Your task to perform on an android device: check android version Image 0: 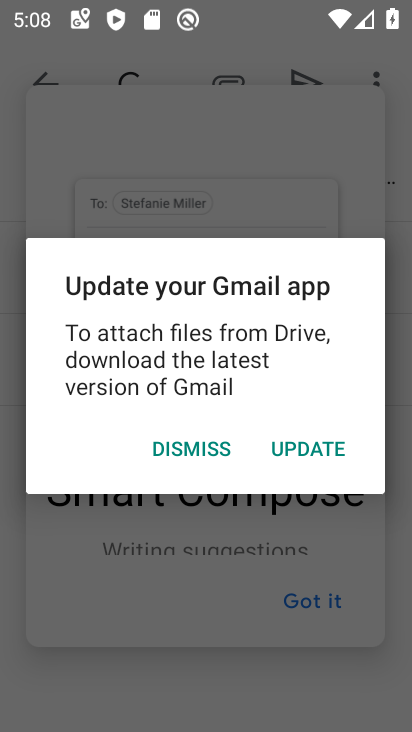
Step 0: press home button
Your task to perform on an android device: check android version Image 1: 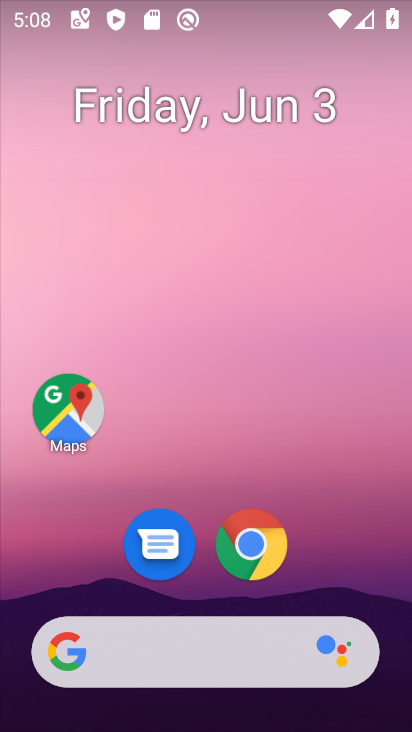
Step 1: drag from (343, 586) to (302, 156)
Your task to perform on an android device: check android version Image 2: 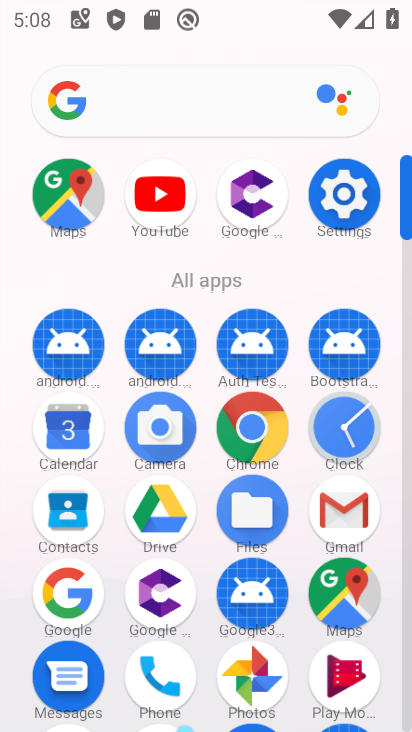
Step 2: click (346, 190)
Your task to perform on an android device: check android version Image 3: 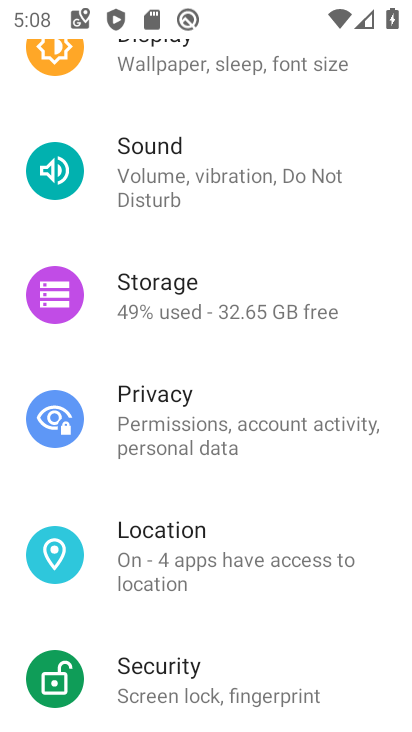
Step 3: drag from (360, 637) to (344, 238)
Your task to perform on an android device: check android version Image 4: 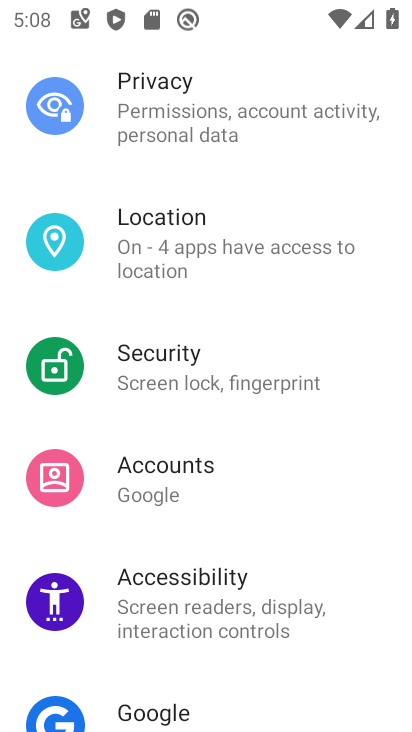
Step 4: drag from (343, 648) to (304, 233)
Your task to perform on an android device: check android version Image 5: 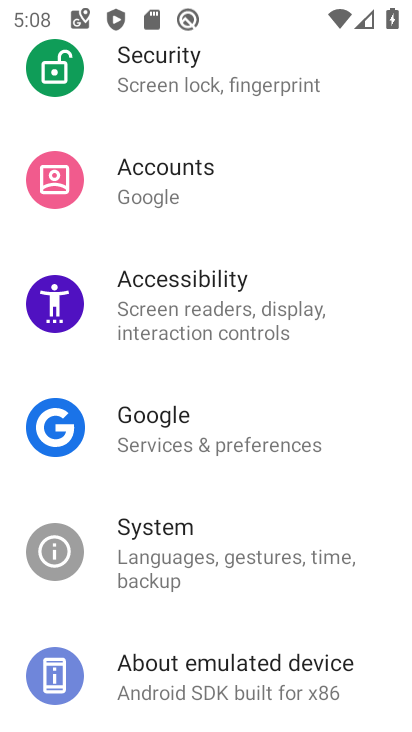
Step 5: drag from (354, 676) to (315, 228)
Your task to perform on an android device: check android version Image 6: 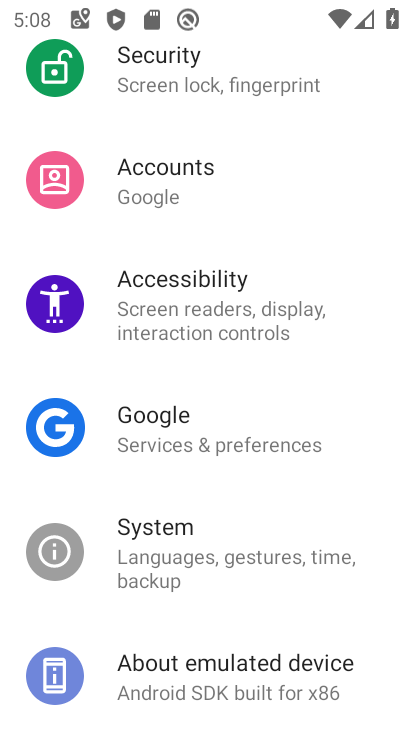
Step 6: click (268, 677)
Your task to perform on an android device: check android version Image 7: 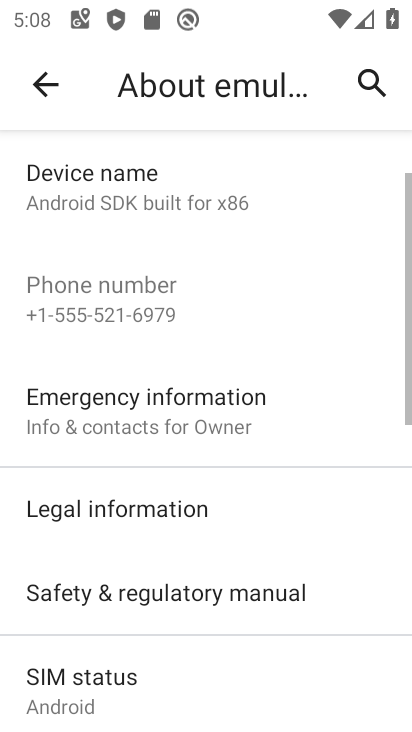
Step 7: drag from (288, 679) to (299, 221)
Your task to perform on an android device: check android version Image 8: 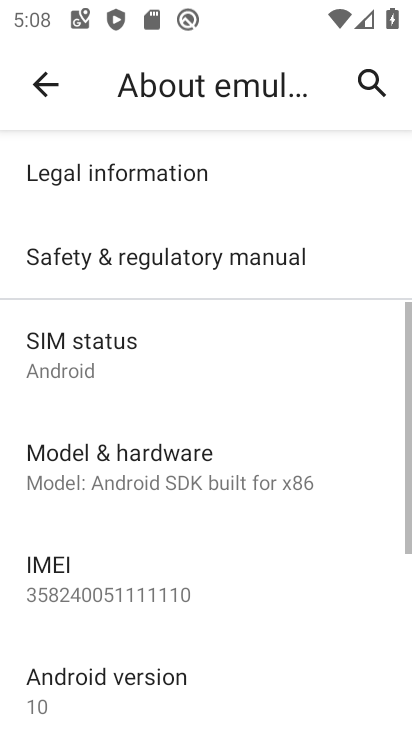
Step 8: drag from (252, 556) to (248, 228)
Your task to perform on an android device: check android version Image 9: 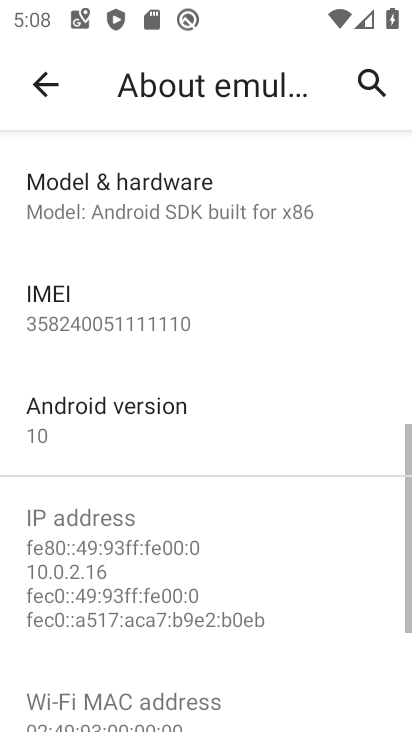
Step 9: drag from (288, 657) to (269, 524)
Your task to perform on an android device: check android version Image 10: 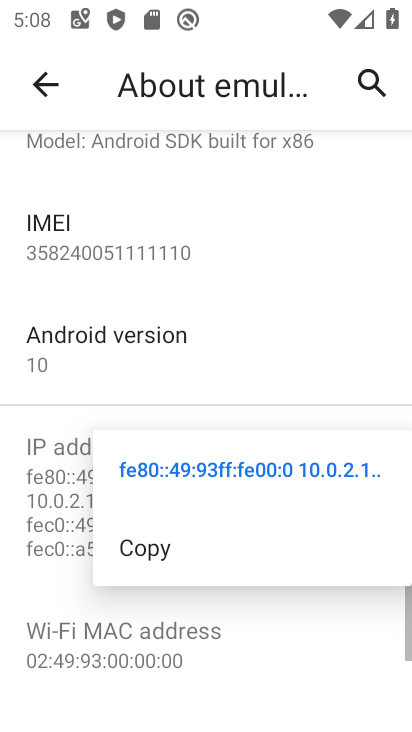
Step 10: click (111, 337)
Your task to perform on an android device: check android version Image 11: 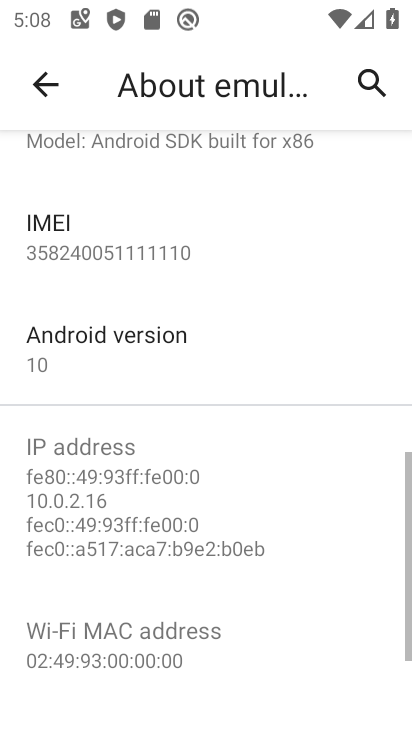
Step 11: click (111, 337)
Your task to perform on an android device: check android version Image 12: 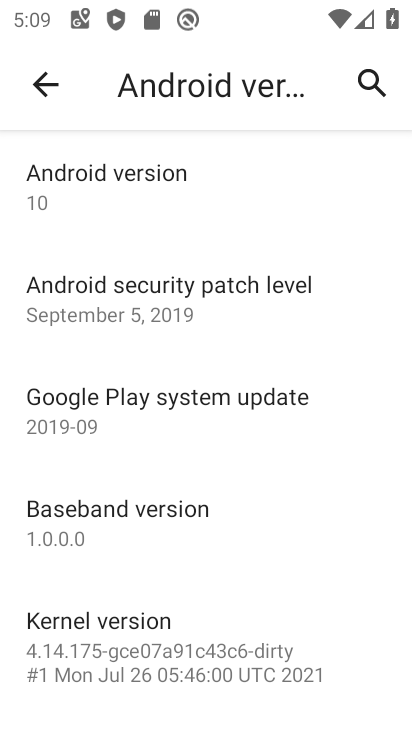
Step 12: task complete